Your task to perform on an android device: See recent photos Image 0: 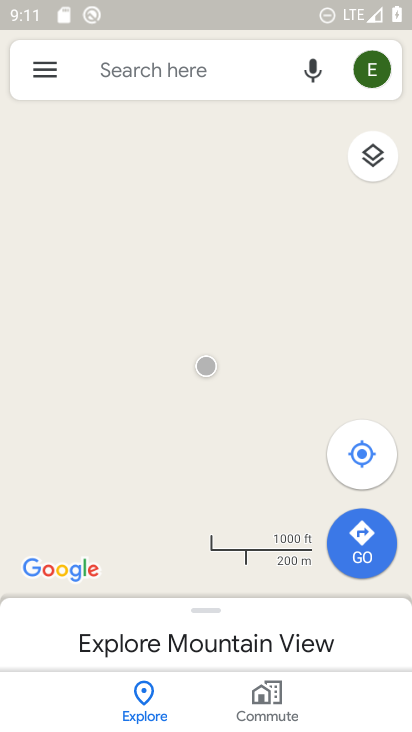
Step 0: press home button
Your task to perform on an android device: See recent photos Image 1: 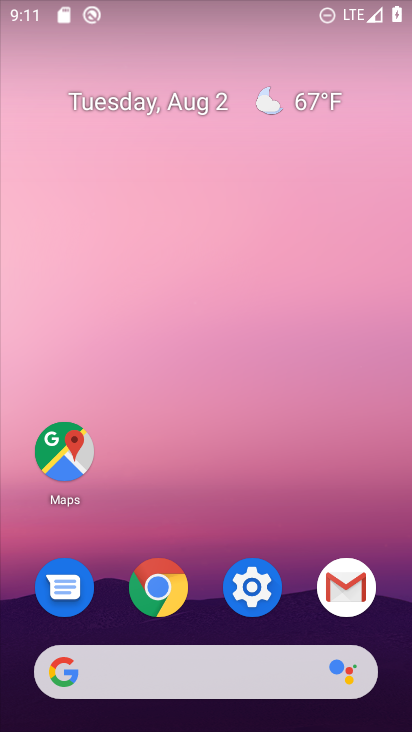
Step 1: drag from (243, 646) to (122, 172)
Your task to perform on an android device: See recent photos Image 2: 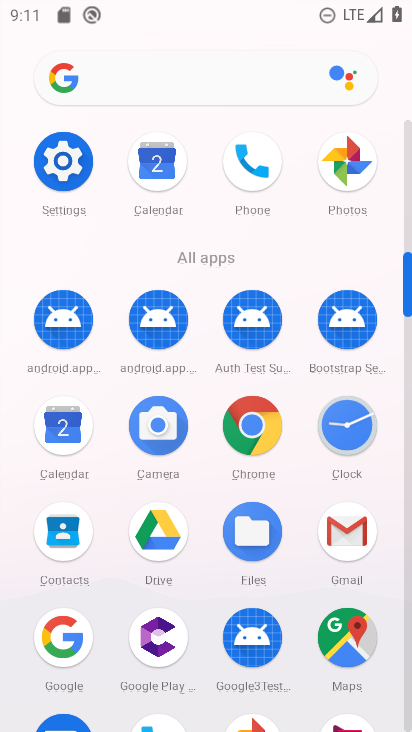
Step 2: click (261, 717)
Your task to perform on an android device: See recent photos Image 3: 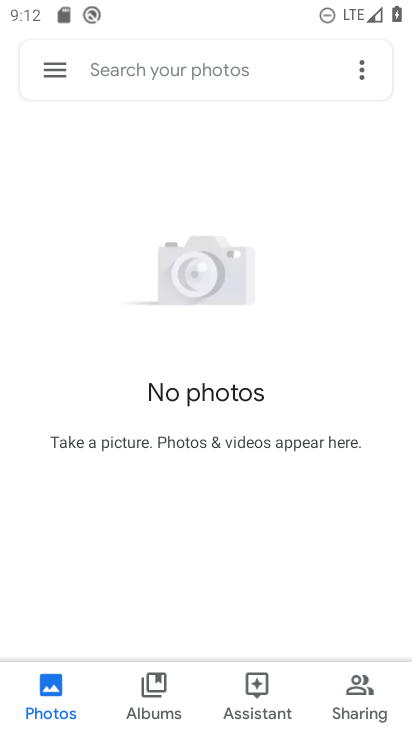
Step 3: task complete